Your task to perform on an android device: check android version Image 0: 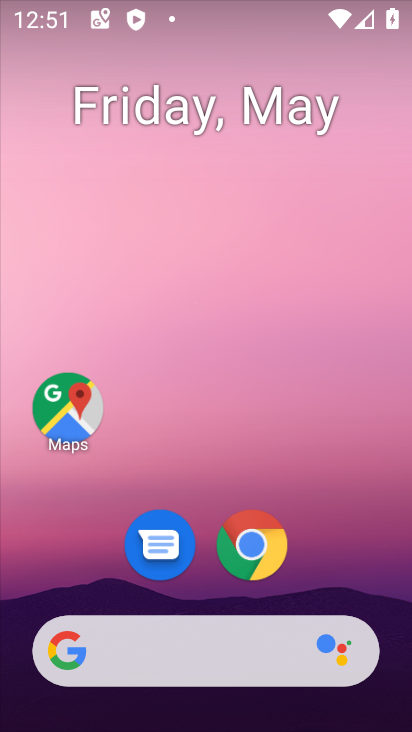
Step 0: drag from (284, 465) to (246, 128)
Your task to perform on an android device: check android version Image 1: 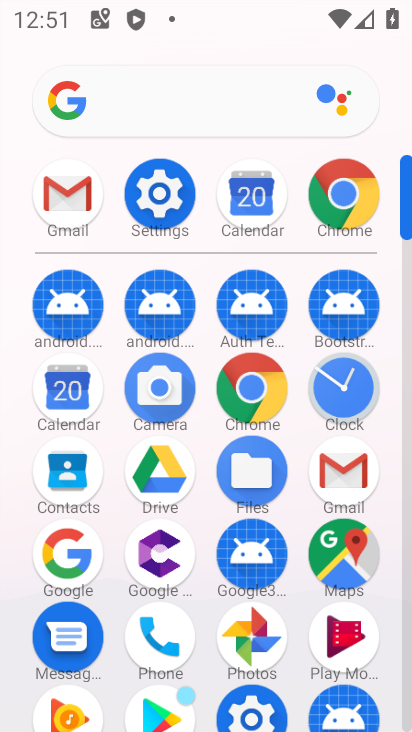
Step 1: click (151, 189)
Your task to perform on an android device: check android version Image 2: 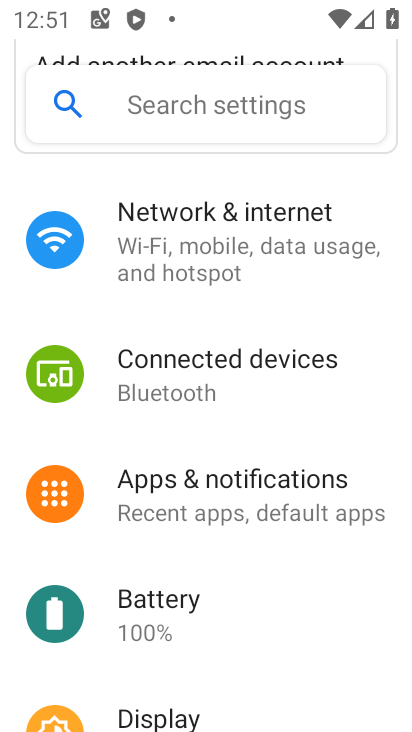
Step 2: drag from (264, 618) to (205, 168)
Your task to perform on an android device: check android version Image 3: 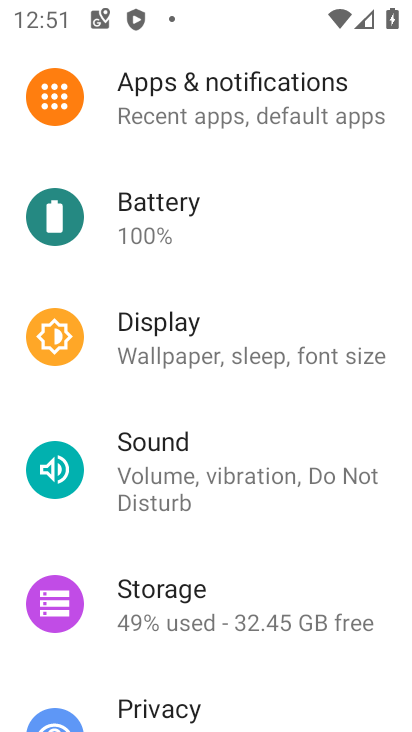
Step 3: drag from (246, 490) to (229, 91)
Your task to perform on an android device: check android version Image 4: 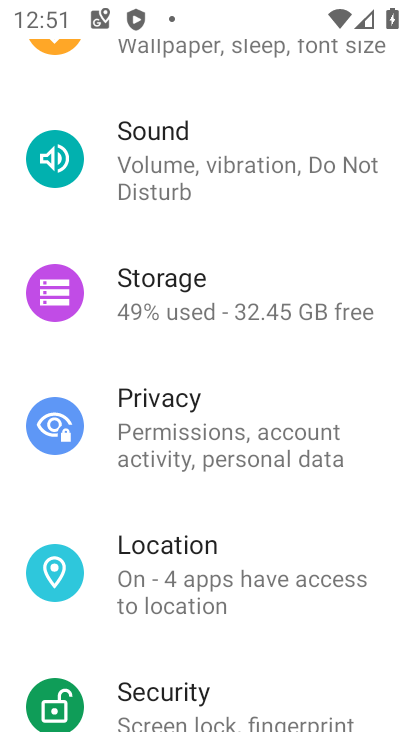
Step 4: drag from (312, 542) to (283, 66)
Your task to perform on an android device: check android version Image 5: 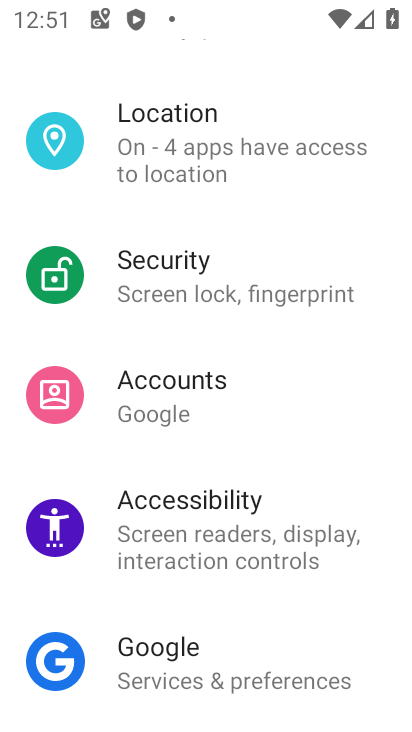
Step 5: drag from (205, 619) to (208, 149)
Your task to perform on an android device: check android version Image 6: 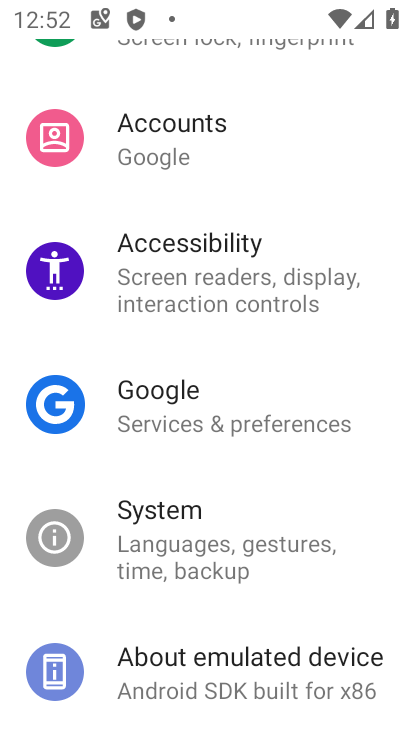
Step 6: drag from (251, 554) to (239, 205)
Your task to perform on an android device: check android version Image 7: 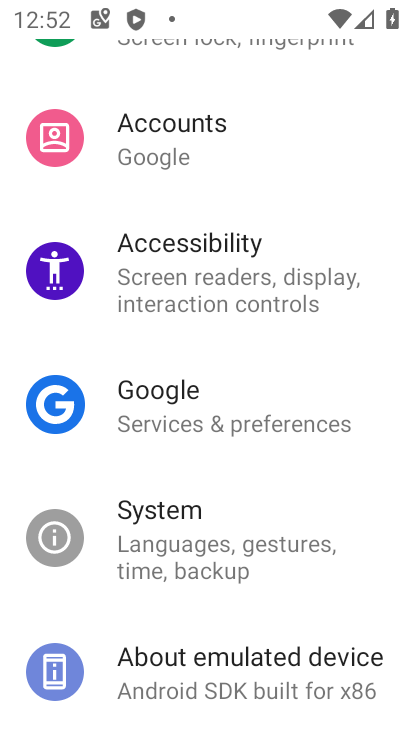
Step 7: click (236, 667)
Your task to perform on an android device: check android version Image 8: 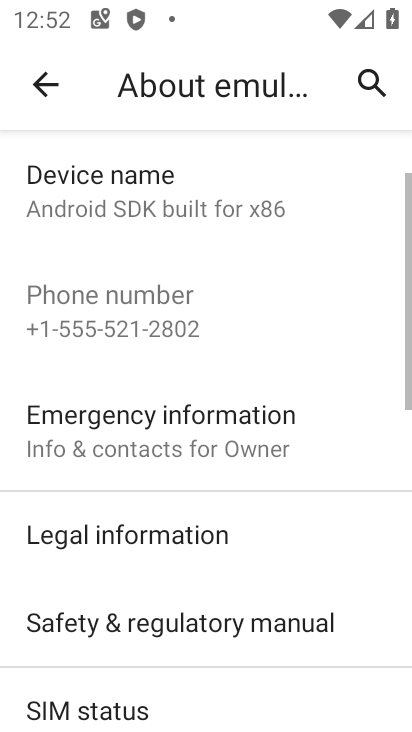
Step 8: drag from (242, 589) to (225, 188)
Your task to perform on an android device: check android version Image 9: 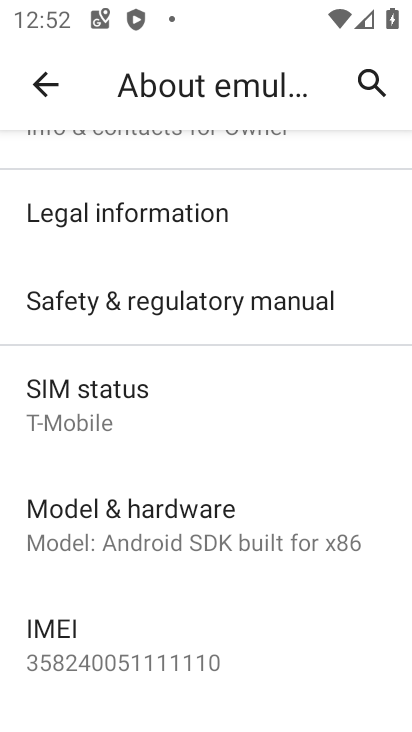
Step 9: drag from (235, 574) to (209, 135)
Your task to perform on an android device: check android version Image 10: 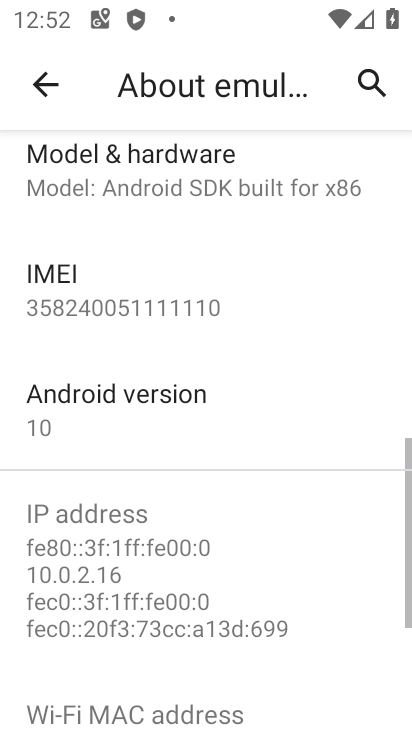
Step 10: click (113, 418)
Your task to perform on an android device: check android version Image 11: 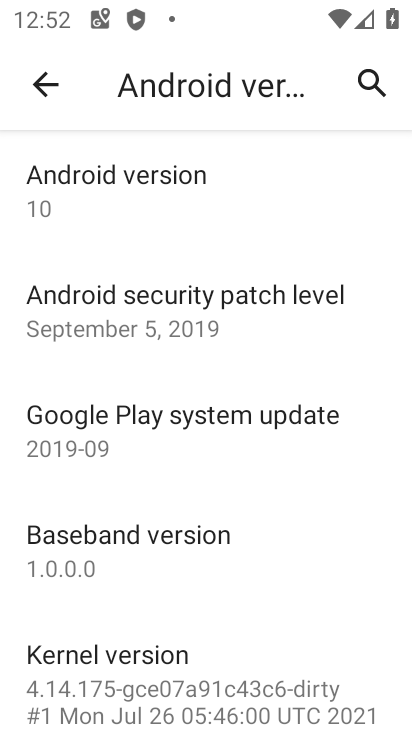
Step 11: task complete